Your task to perform on an android device: toggle location history Image 0: 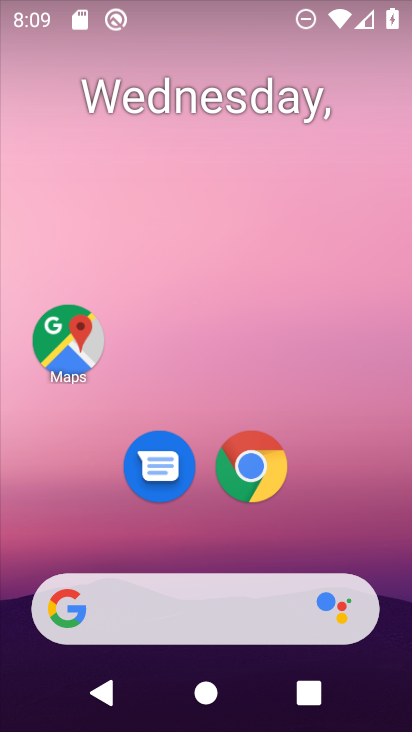
Step 0: drag from (214, 385) to (234, 147)
Your task to perform on an android device: toggle location history Image 1: 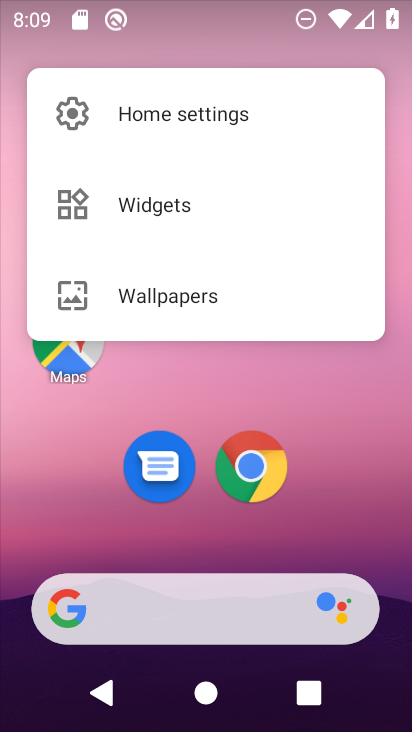
Step 1: drag from (253, 99) to (291, 11)
Your task to perform on an android device: toggle location history Image 2: 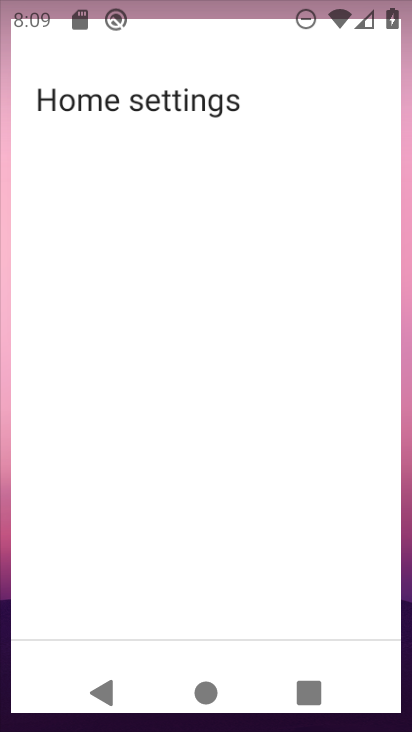
Step 2: click (249, 88)
Your task to perform on an android device: toggle location history Image 3: 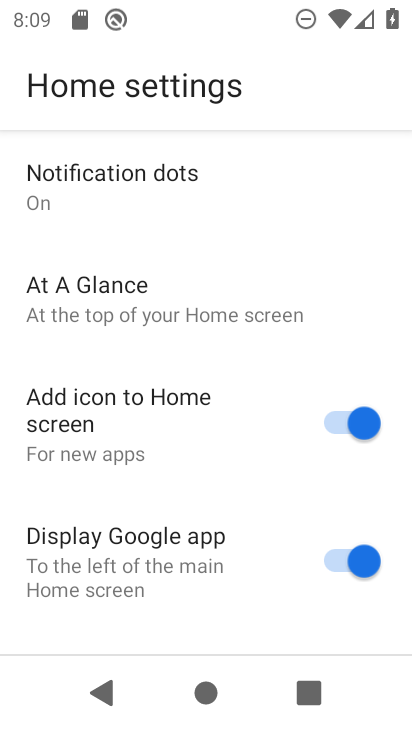
Step 3: press home button
Your task to perform on an android device: toggle location history Image 4: 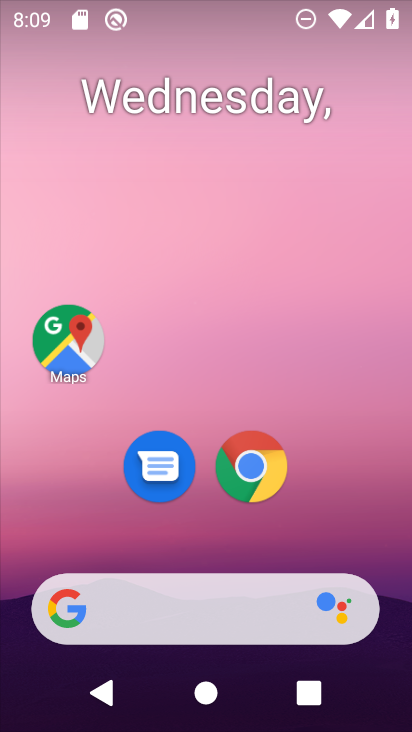
Step 4: drag from (211, 539) to (202, 161)
Your task to perform on an android device: toggle location history Image 5: 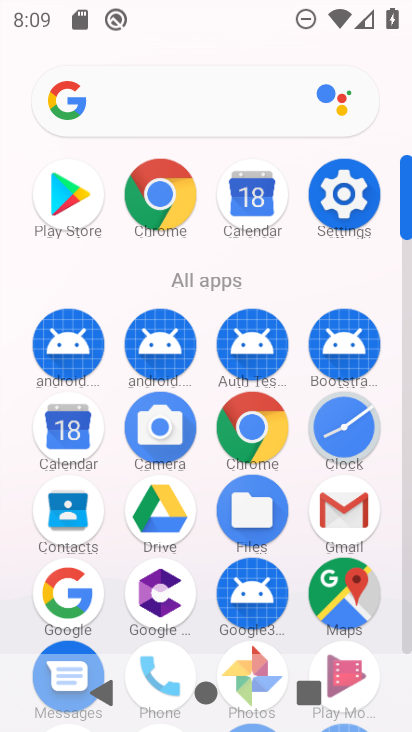
Step 5: click (361, 208)
Your task to perform on an android device: toggle location history Image 6: 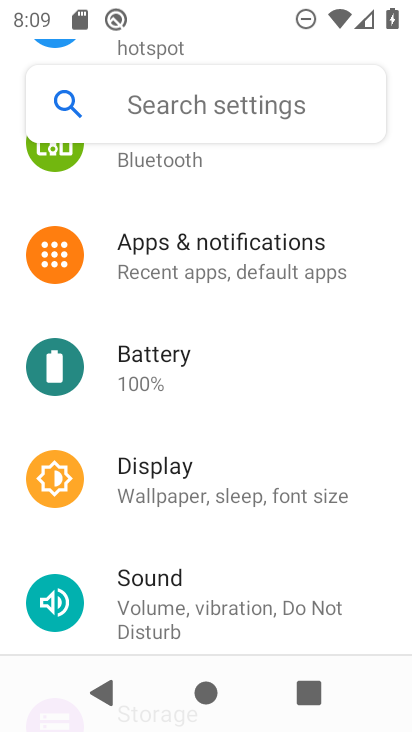
Step 6: drag from (196, 493) to (266, 154)
Your task to perform on an android device: toggle location history Image 7: 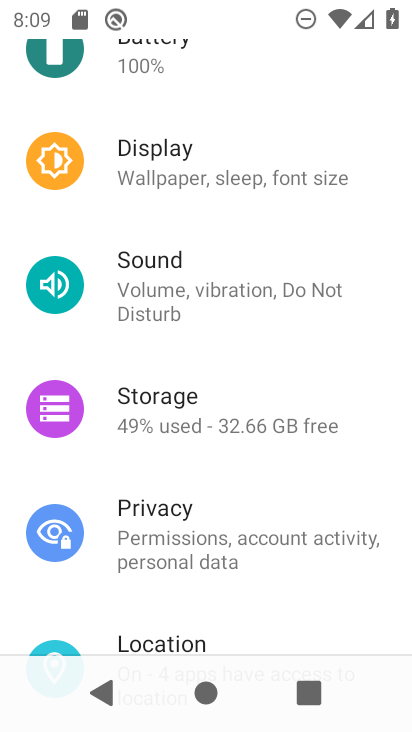
Step 7: drag from (192, 547) to (227, 300)
Your task to perform on an android device: toggle location history Image 8: 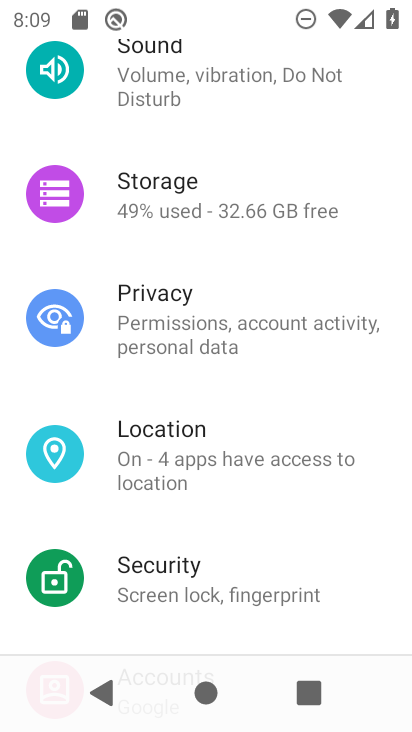
Step 8: click (163, 552)
Your task to perform on an android device: toggle location history Image 9: 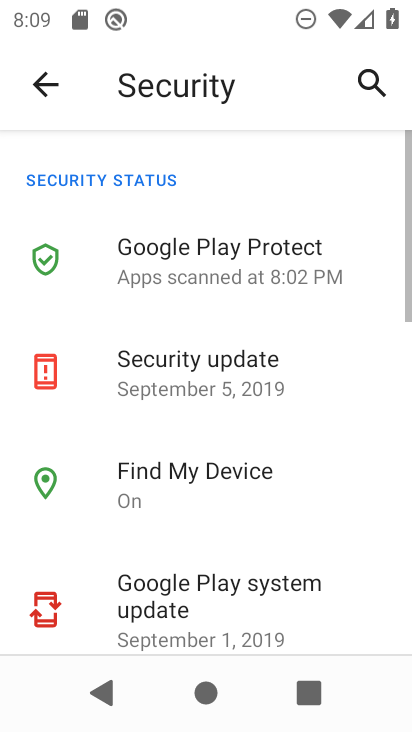
Step 9: click (156, 440)
Your task to perform on an android device: toggle location history Image 10: 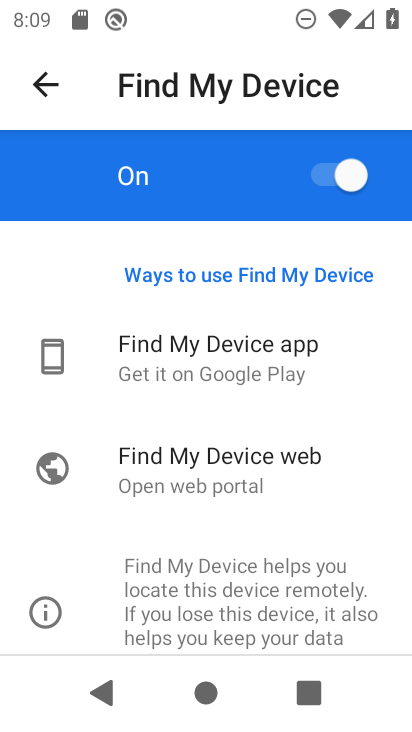
Step 10: click (45, 94)
Your task to perform on an android device: toggle location history Image 11: 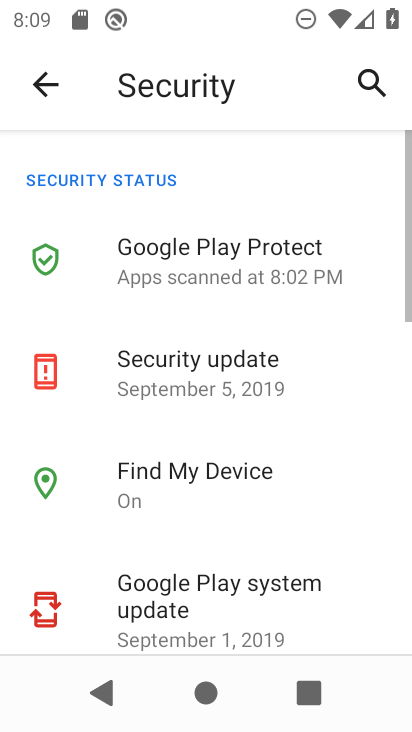
Step 11: click (45, 85)
Your task to perform on an android device: toggle location history Image 12: 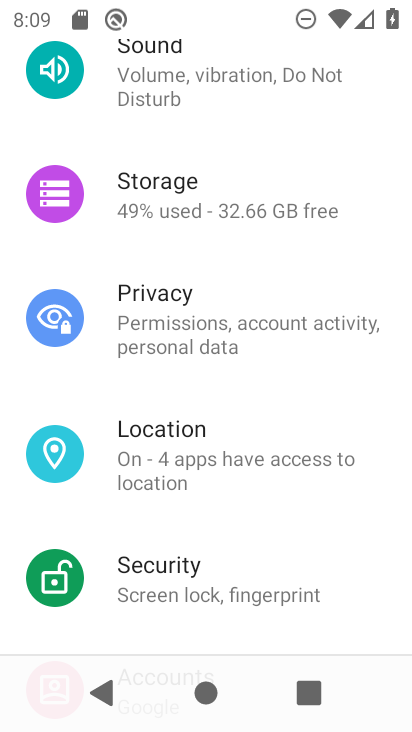
Step 12: click (177, 454)
Your task to perform on an android device: toggle location history Image 13: 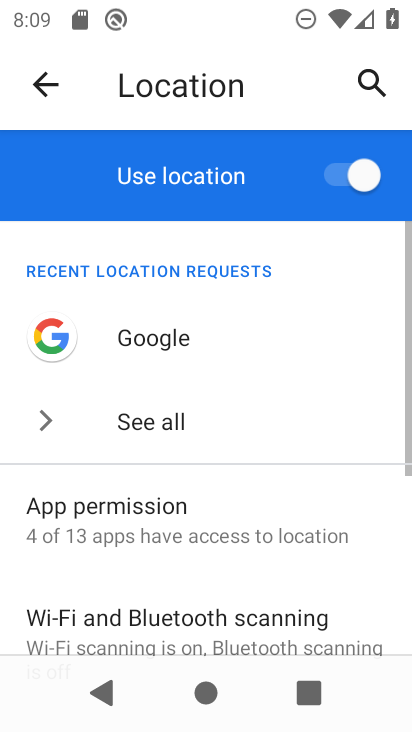
Step 13: drag from (197, 529) to (210, 291)
Your task to perform on an android device: toggle location history Image 14: 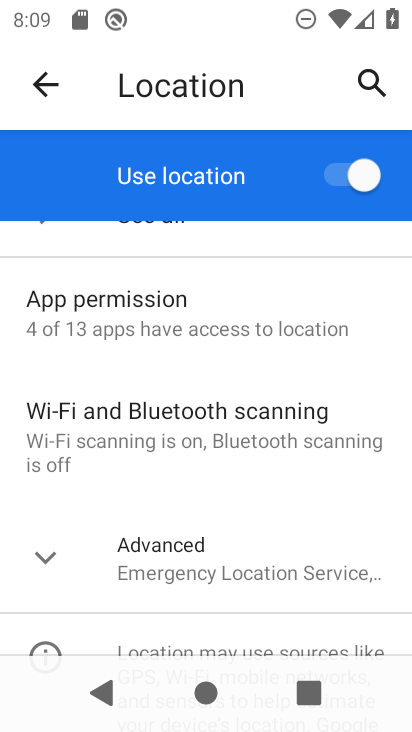
Step 14: click (186, 562)
Your task to perform on an android device: toggle location history Image 15: 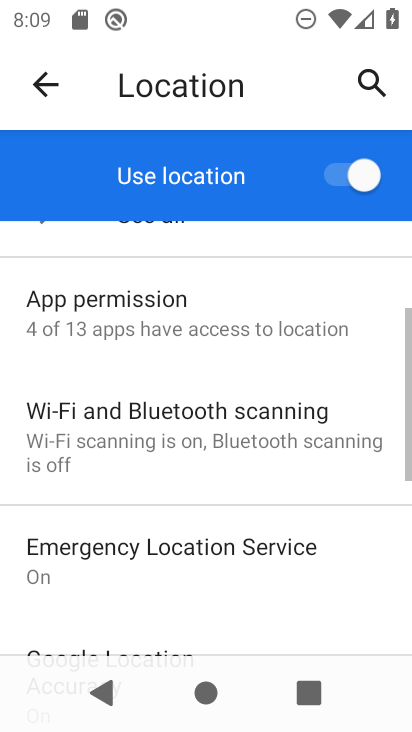
Step 15: drag from (202, 574) to (238, 234)
Your task to perform on an android device: toggle location history Image 16: 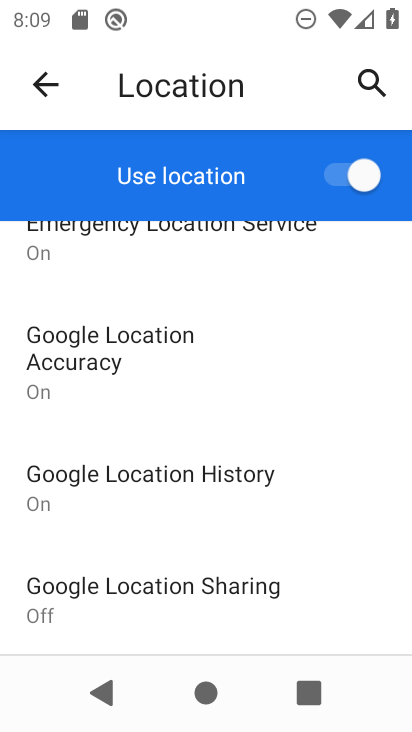
Step 16: click (144, 482)
Your task to perform on an android device: toggle location history Image 17: 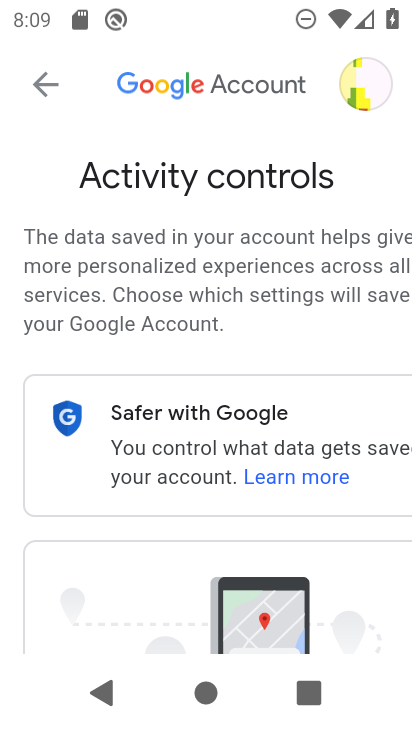
Step 17: drag from (105, 472) to (171, 116)
Your task to perform on an android device: toggle location history Image 18: 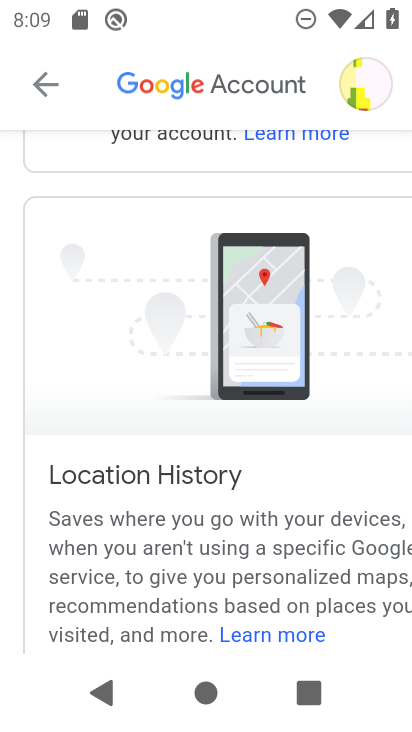
Step 18: drag from (168, 428) to (222, 30)
Your task to perform on an android device: toggle location history Image 19: 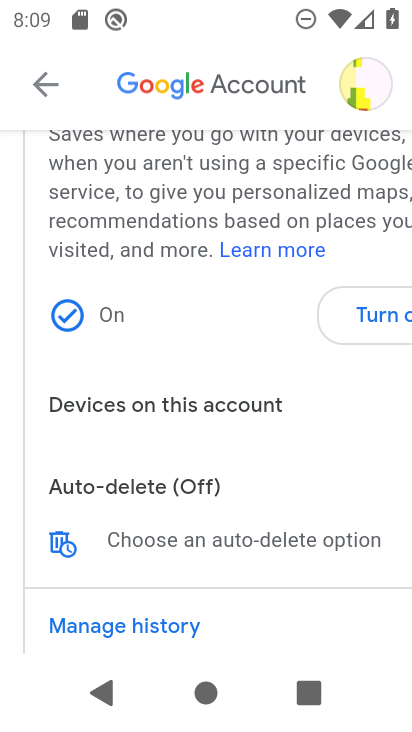
Step 19: click (352, 313)
Your task to perform on an android device: toggle location history Image 20: 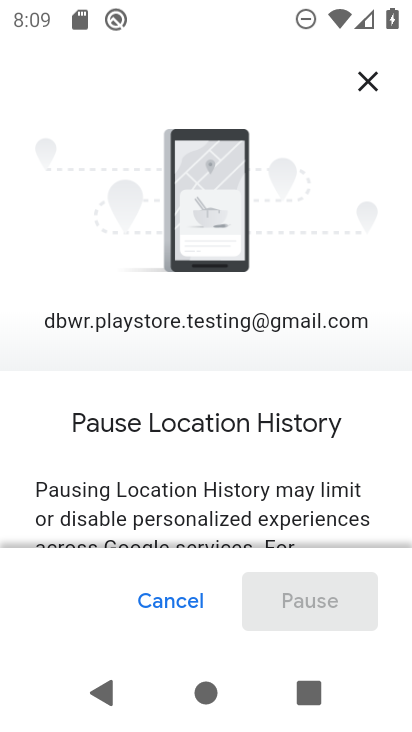
Step 20: drag from (182, 516) to (223, 197)
Your task to perform on an android device: toggle location history Image 21: 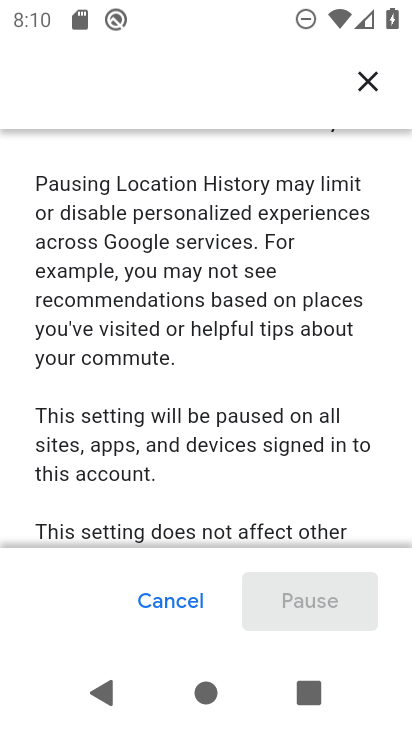
Step 21: drag from (219, 447) to (251, 156)
Your task to perform on an android device: toggle location history Image 22: 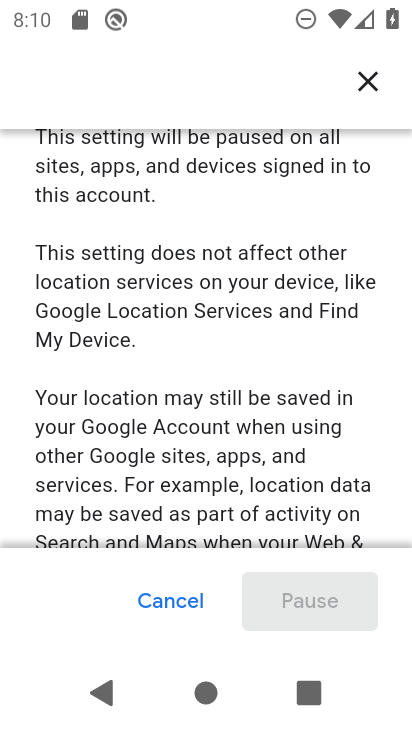
Step 22: drag from (218, 492) to (269, 177)
Your task to perform on an android device: toggle location history Image 23: 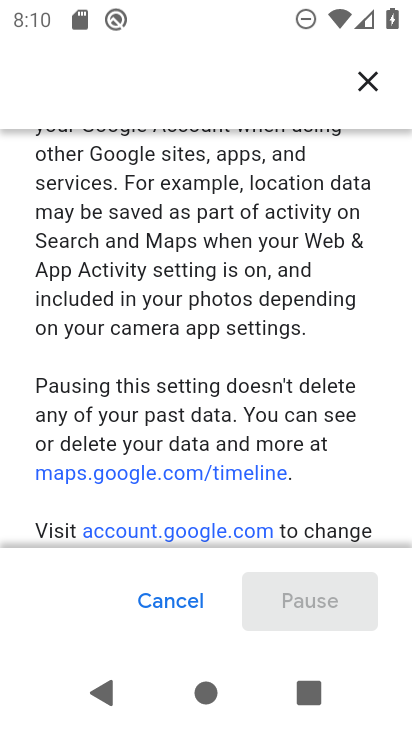
Step 23: drag from (251, 456) to (281, 95)
Your task to perform on an android device: toggle location history Image 24: 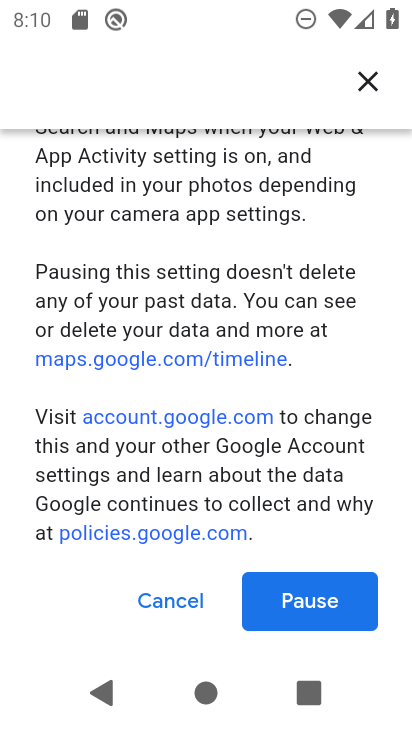
Step 24: drag from (191, 461) to (229, 102)
Your task to perform on an android device: toggle location history Image 25: 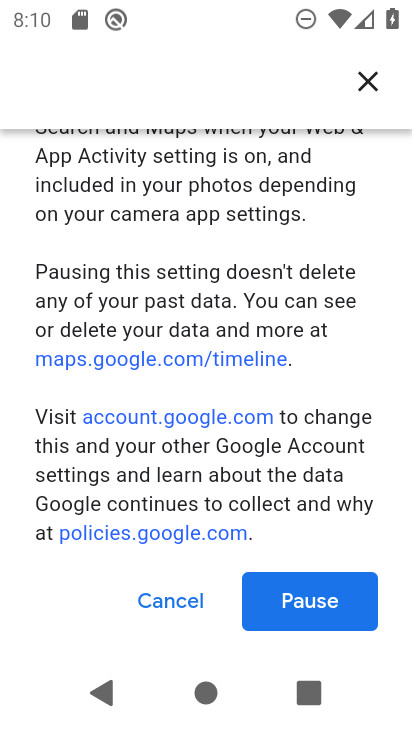
Step 25: click (330, 603)
Your task to perform on an android device: toggle location history Image 26: 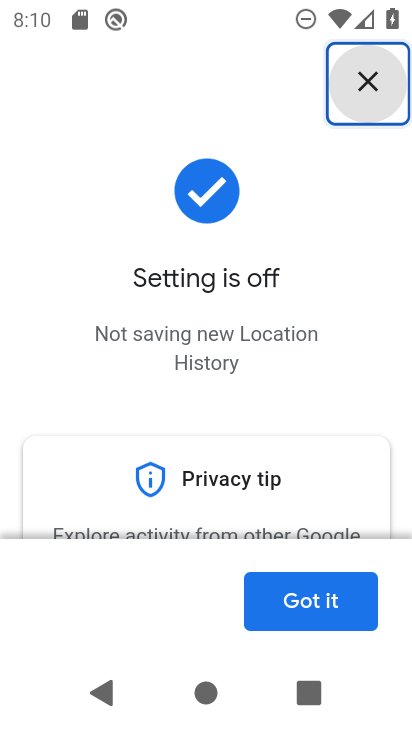
Step 26: click (315, 611)
Your task to perform on an android device: toggle location history Image 27: 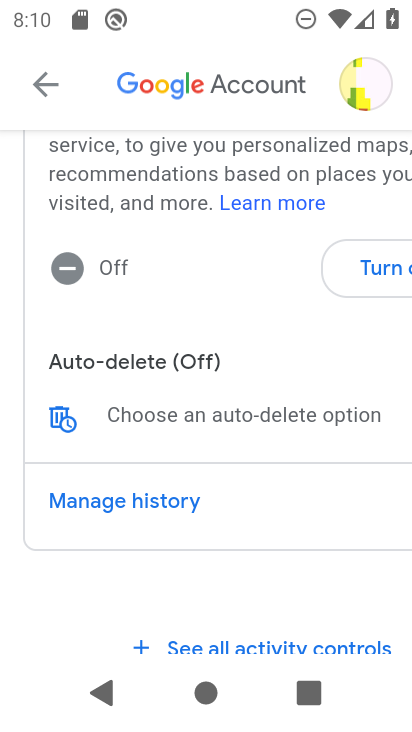
Step 27: task complete